Your task to perform on an android device: see sites visited before in the chrome app Image 0: 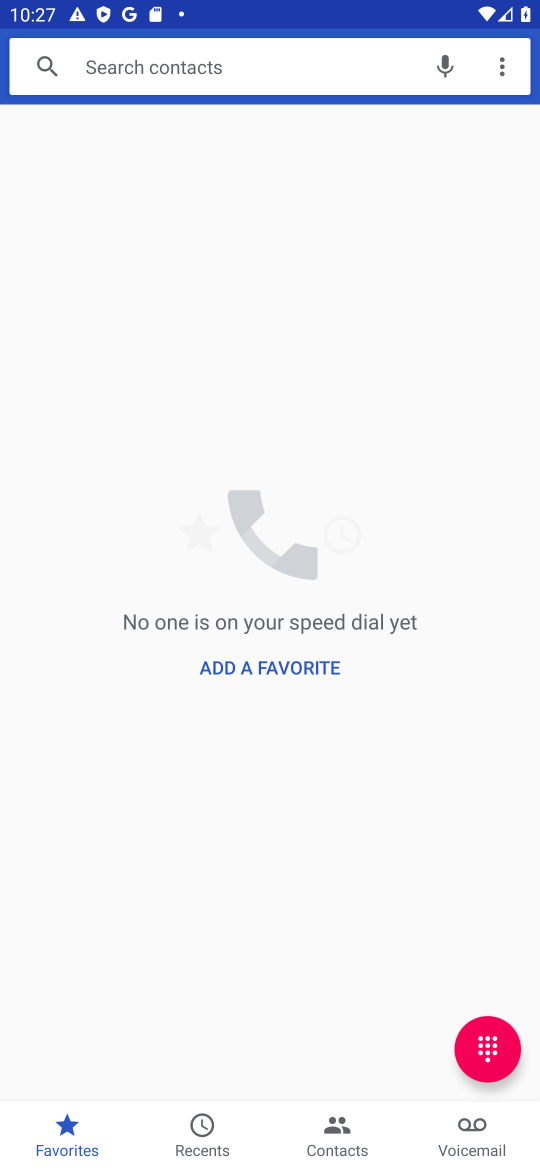
Step 0: press home button
Your task to perform on an android device: see sites visited before in the chrome app Image 1: 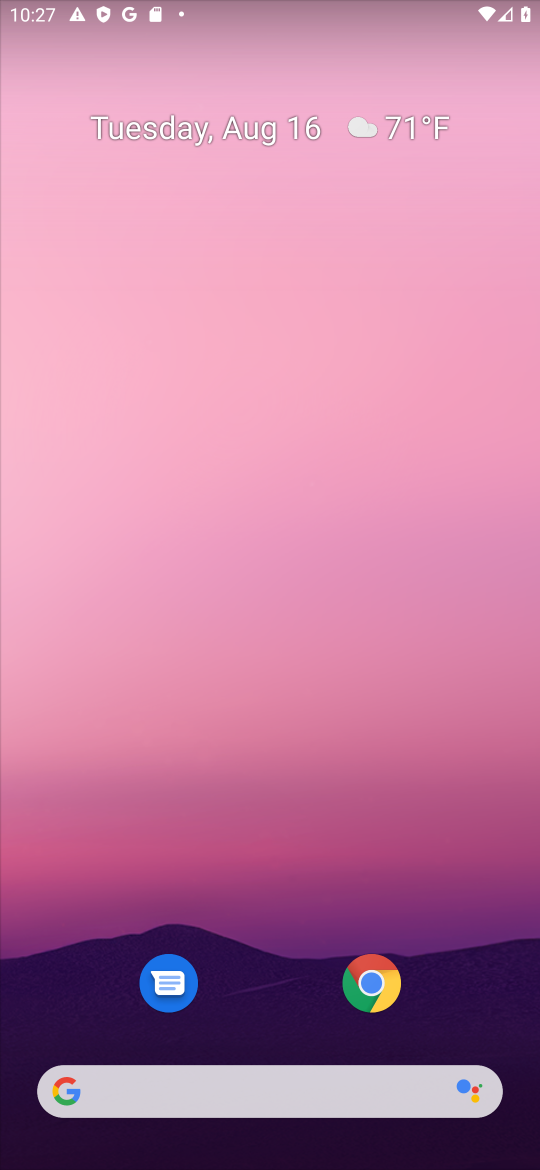
Step 1: click (374, 1008)
Your task to perform on an android device: see sites visited before in the chrome app Image 2: 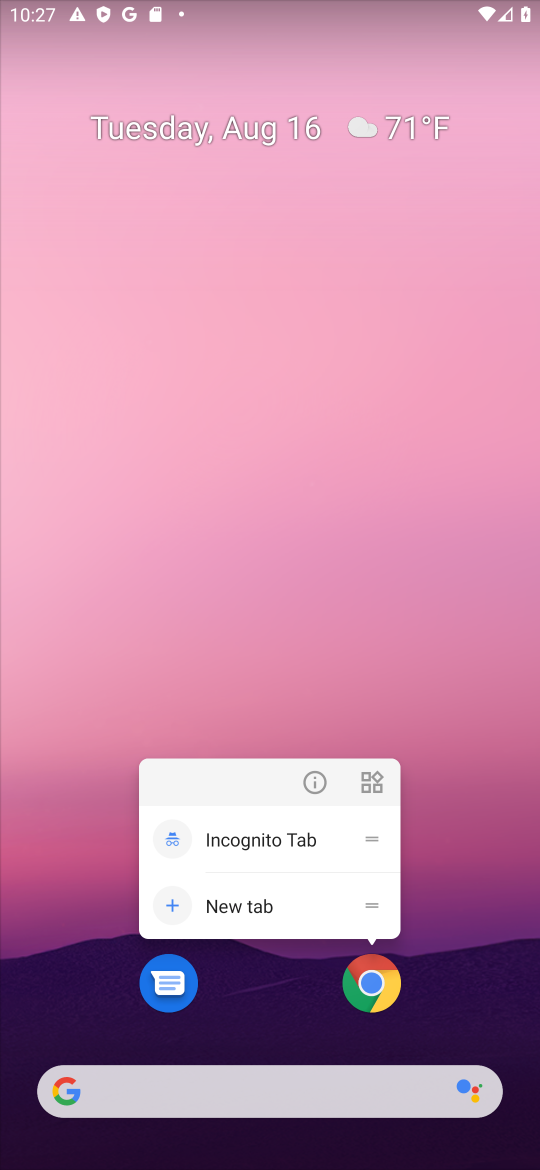
Step 2: click (374, 1008)
Your task to perform on an android device: see sites visited before in the chrome app Image 3: 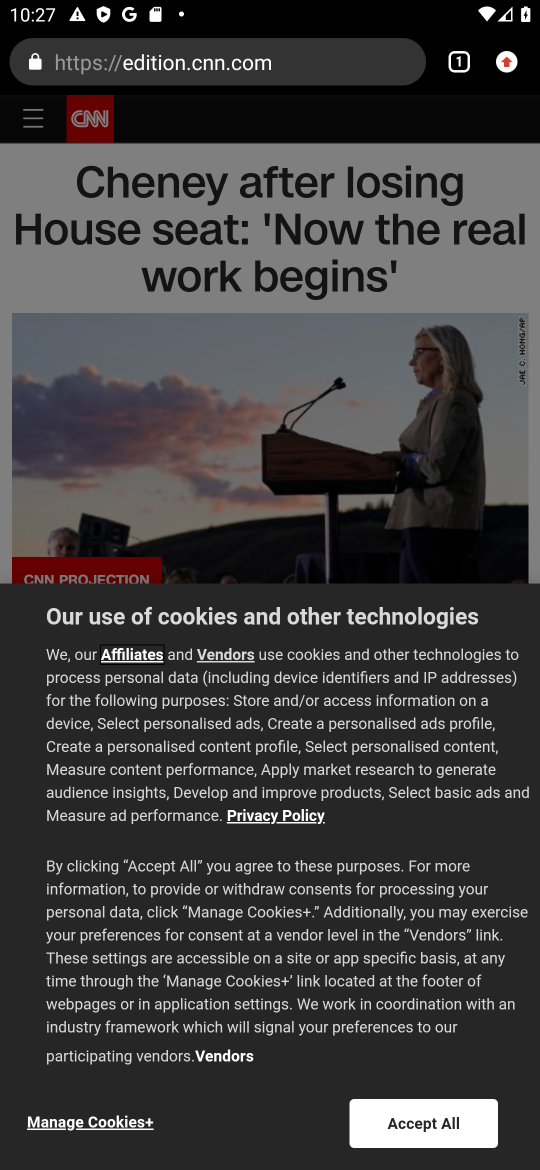
Step 3: task complete